Your task to perform on an android device: Open Chrome and go to settings Image 0: 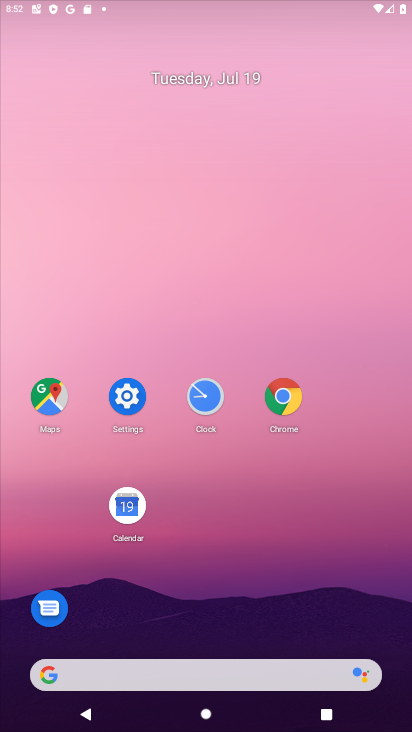
Step 0: click (129, 393)
Your task to perform on an android device: Open Chrome and go to settings Image 1: 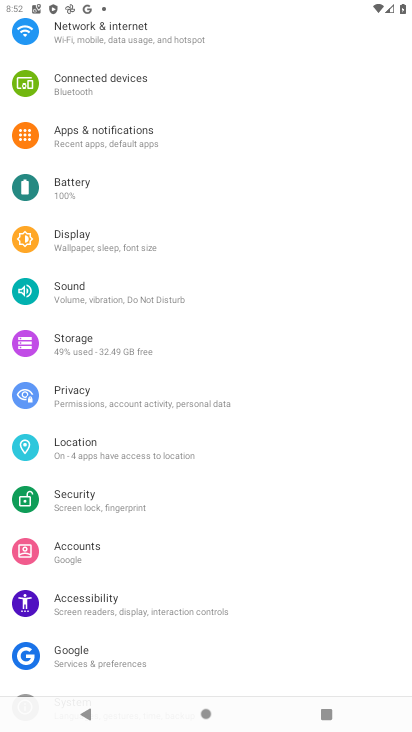
Step 1: press home button
Your task to perform on an android device: Open Chrome and go to settings Image 2: 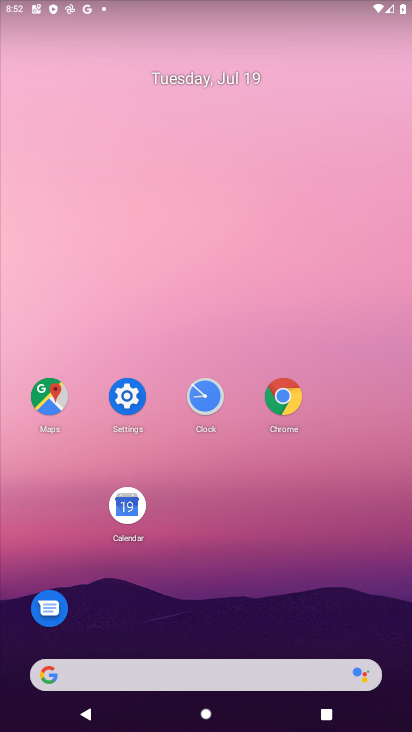
Step 2: click (294, 395)
Your task to perform on an android device: Open Chrome and go to settings Image 3: 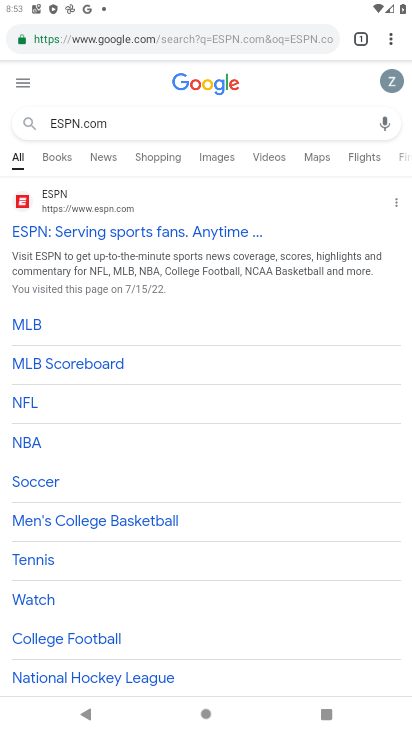
Step 3: click (384, 37)
Your task to perform on an android device: Open Chrome and go to settings Image 4: 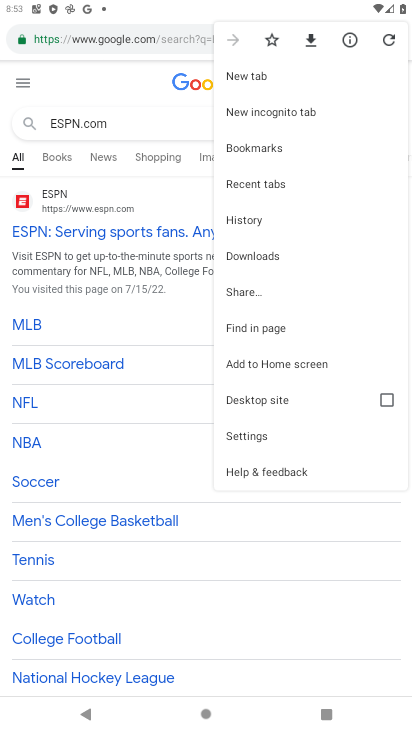
Step 4: click (254, 429)
Your task to perform on an android device: Open Chrome and go to settings Image 5: 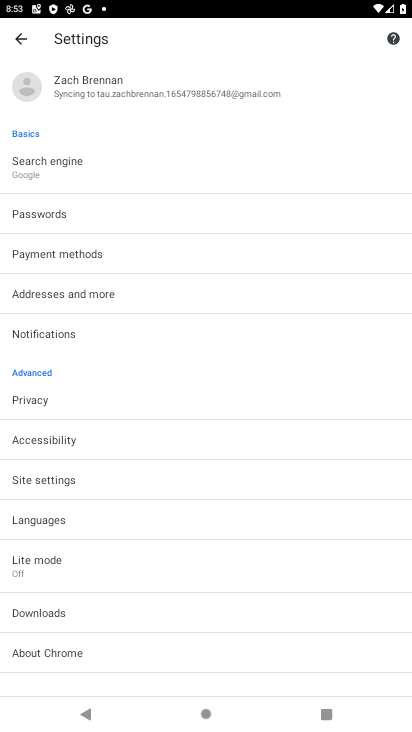
Step 5: task complete